Your task to perform on an android device: manage bookmarks in the chrome app Image 0: 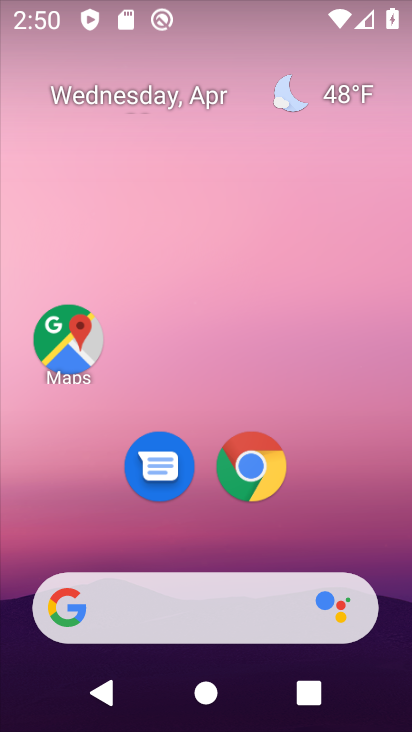
Step 0: click (250, 459)
Your task to perform on an android device: manage bookmarks in the chrome app Image 1: 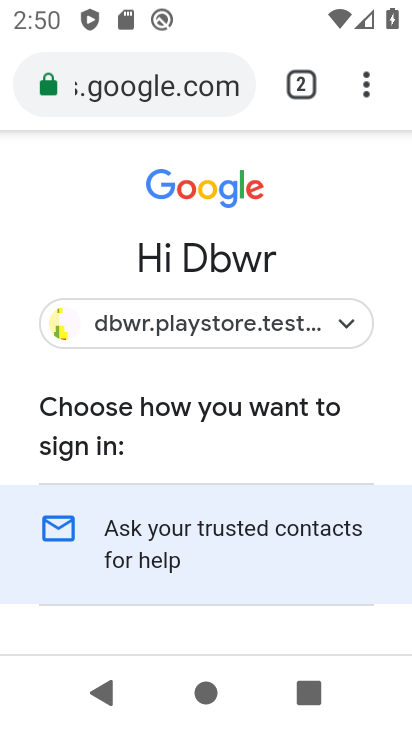
Step 1: click (366, 98)
Your task to perform on an android device: manage bookmarks in the chrome app Image 2: 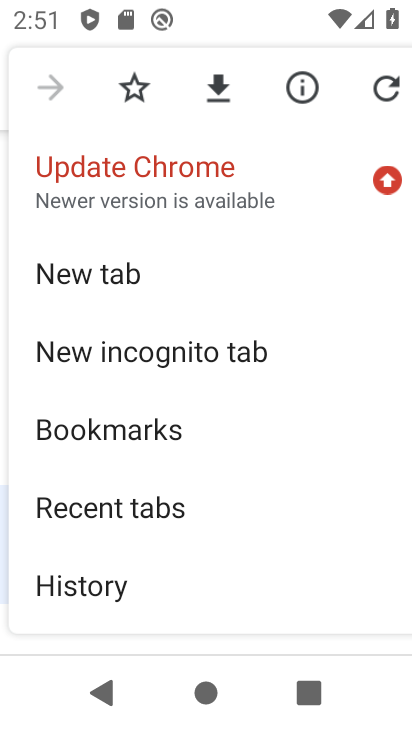
Step 2: click (112, 422)
Your task to perform on an android device: manage bookmarks in the chrome app Image 3: 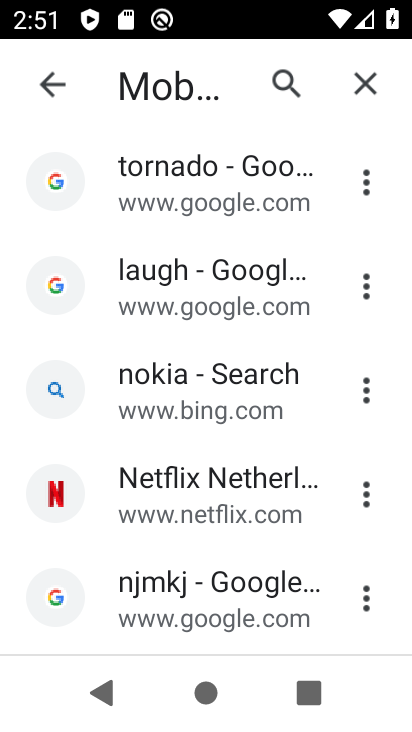
Step 3: click (371, 283)
Your task to perform on an android device: manage bookmarks in the chrome app Image 4: 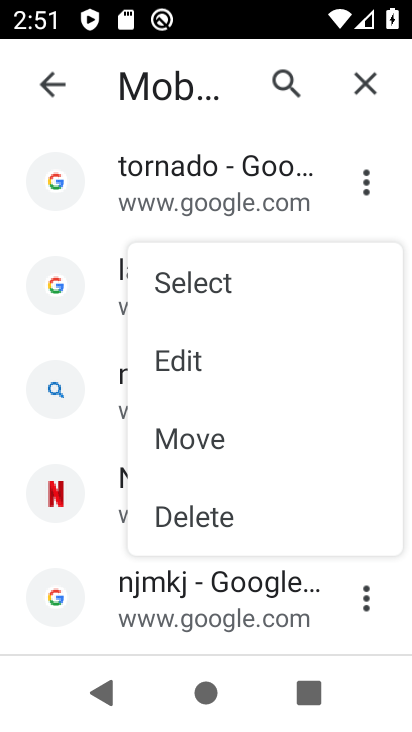
Step 4: click (247, 359)
Your task to perform on an android device: manage bookmarks in the chrome app Image 5: 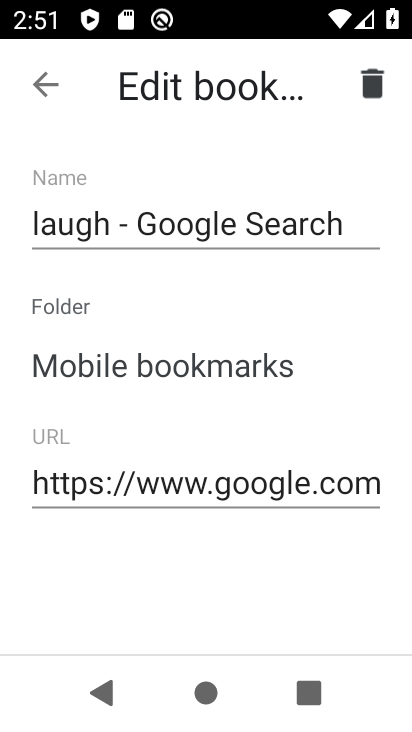
Step 5: click (40, 74)
Your task to perform on an android device: manage bookmarks in the chrome app Image 6: 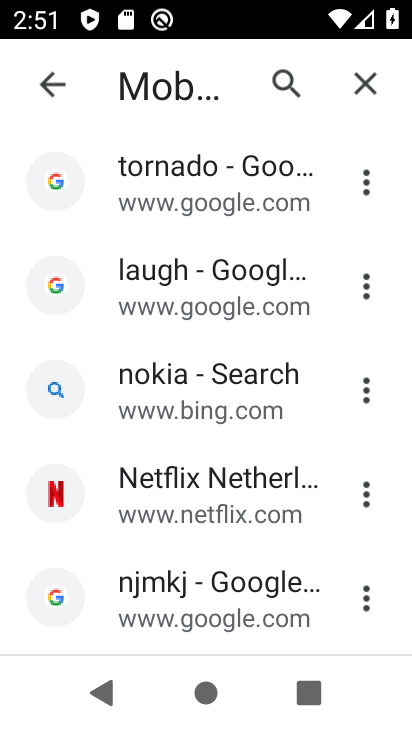
Step 6: click (40, 74)
Your task to perform on an android device: manage bookmarks in the chrome app Image 7: 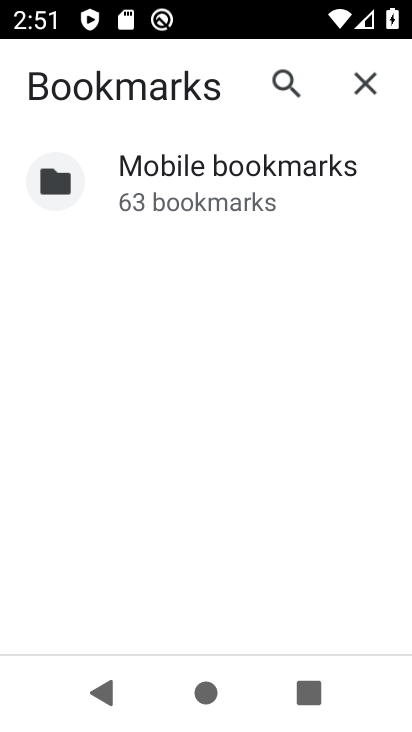
Step 7: task complete